Your task to perform on an android device: Open Google Image 0: 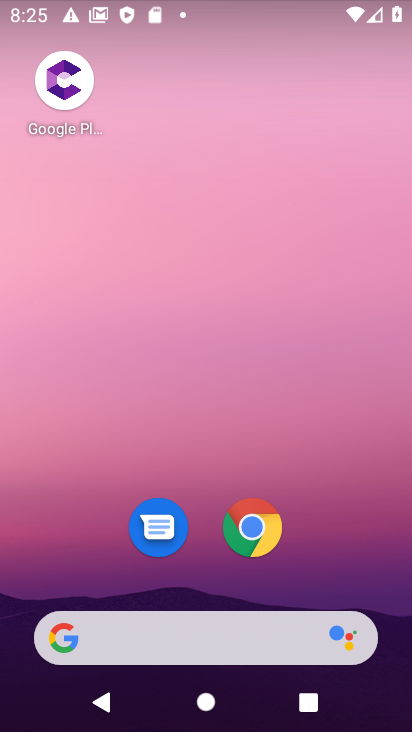
Step 0: click (258, 650)
Your task to perform on an android device: Open Google Image 1: 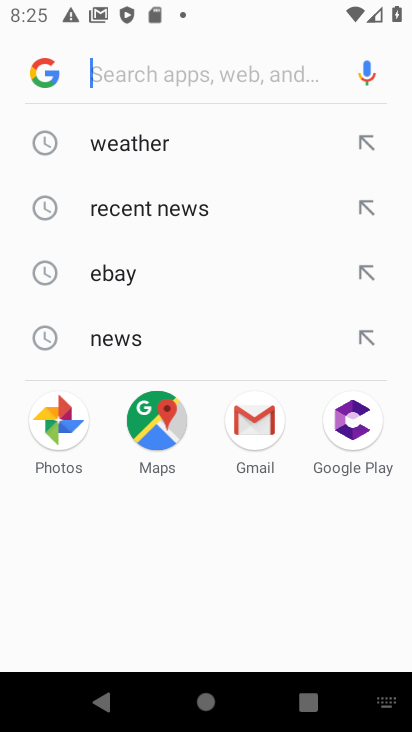
Step 1: task complete